Your task to perform on an android device: open app "Messenger Lite" (install if not already installed) Image 0: 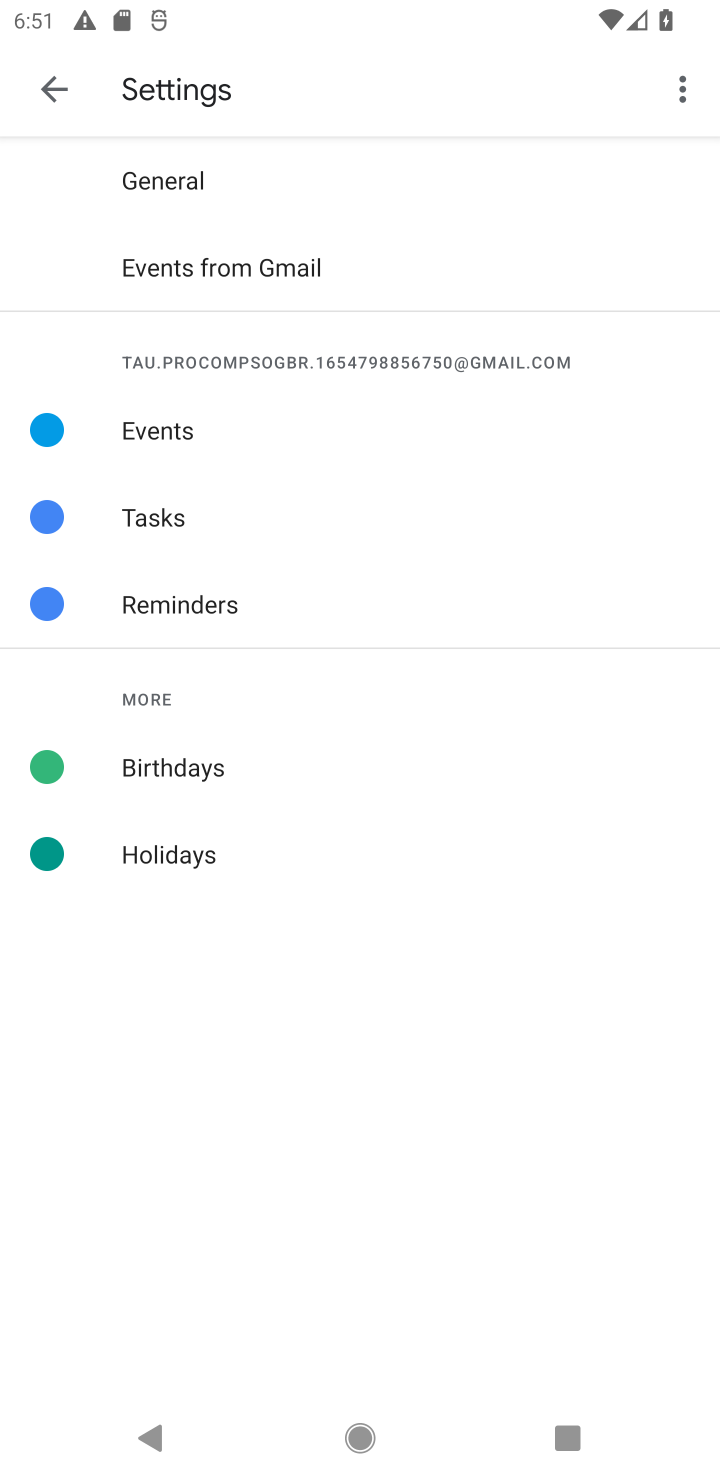
Step 0: press home button
Your task to perform on an android device: open app "Messenger Lite" (install if not already installed) Image 1: 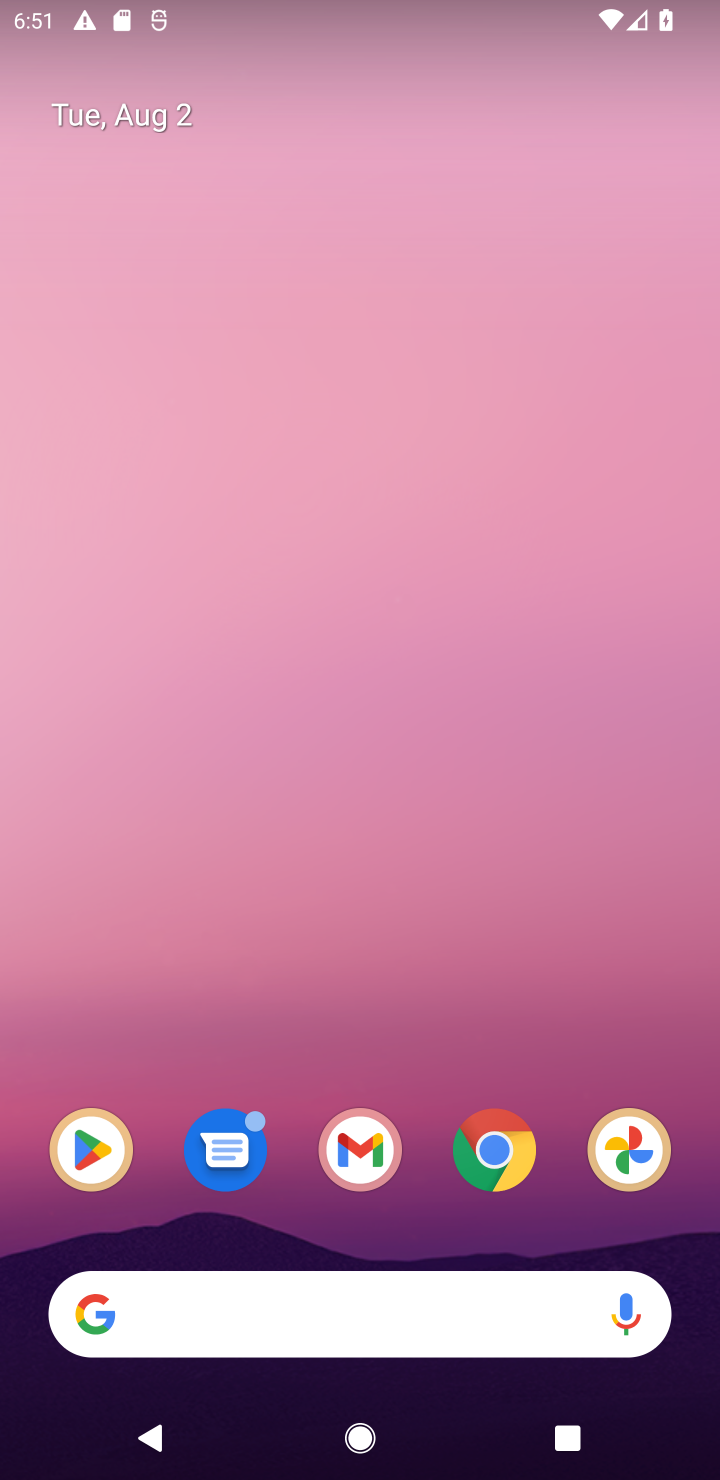
Step 1: drag from (312, 1224) to (716, 438)
Your task to perform on an android device: open app "Messenger Lite" (install if not already installed) Image 2: 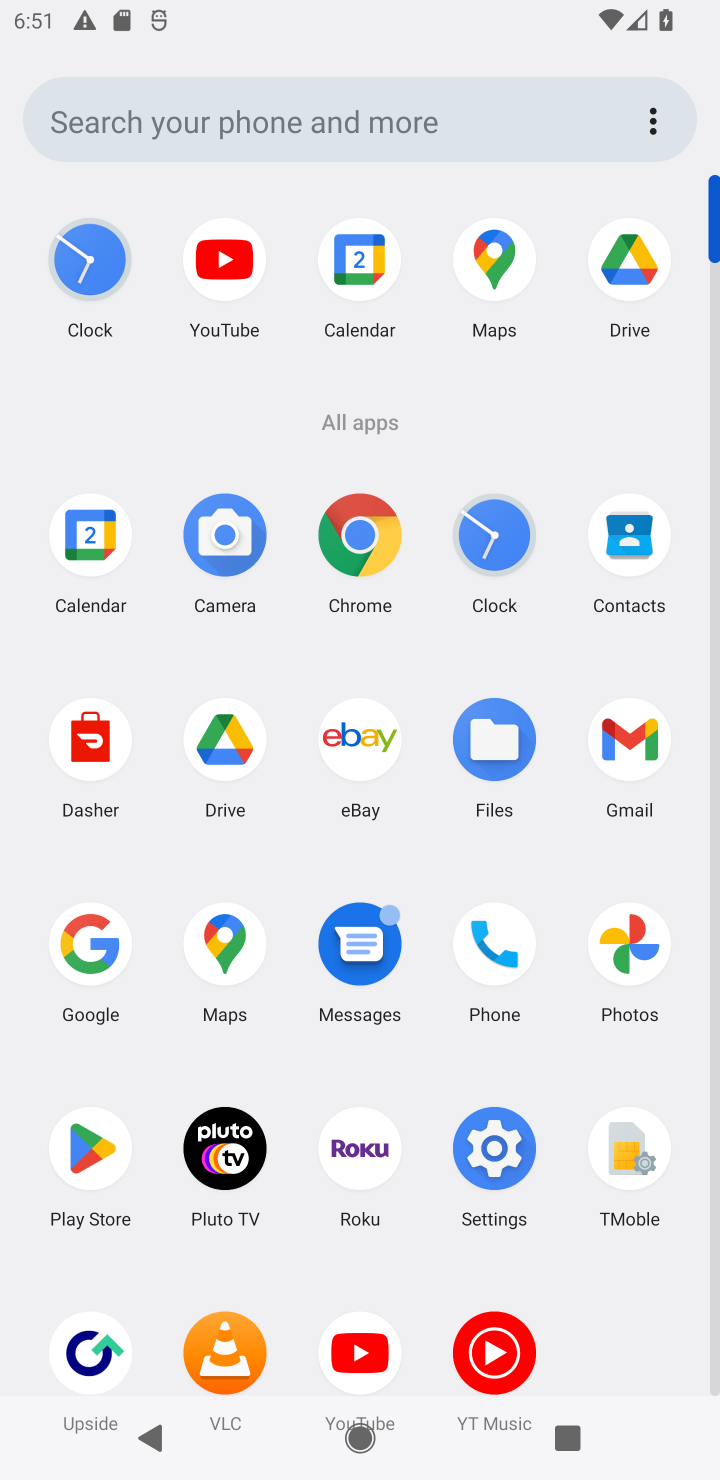
Step 2: click (112, 1119)
Your task to perform on an android device: open app "Messenger Lite" (install if not already installed) Image 3: 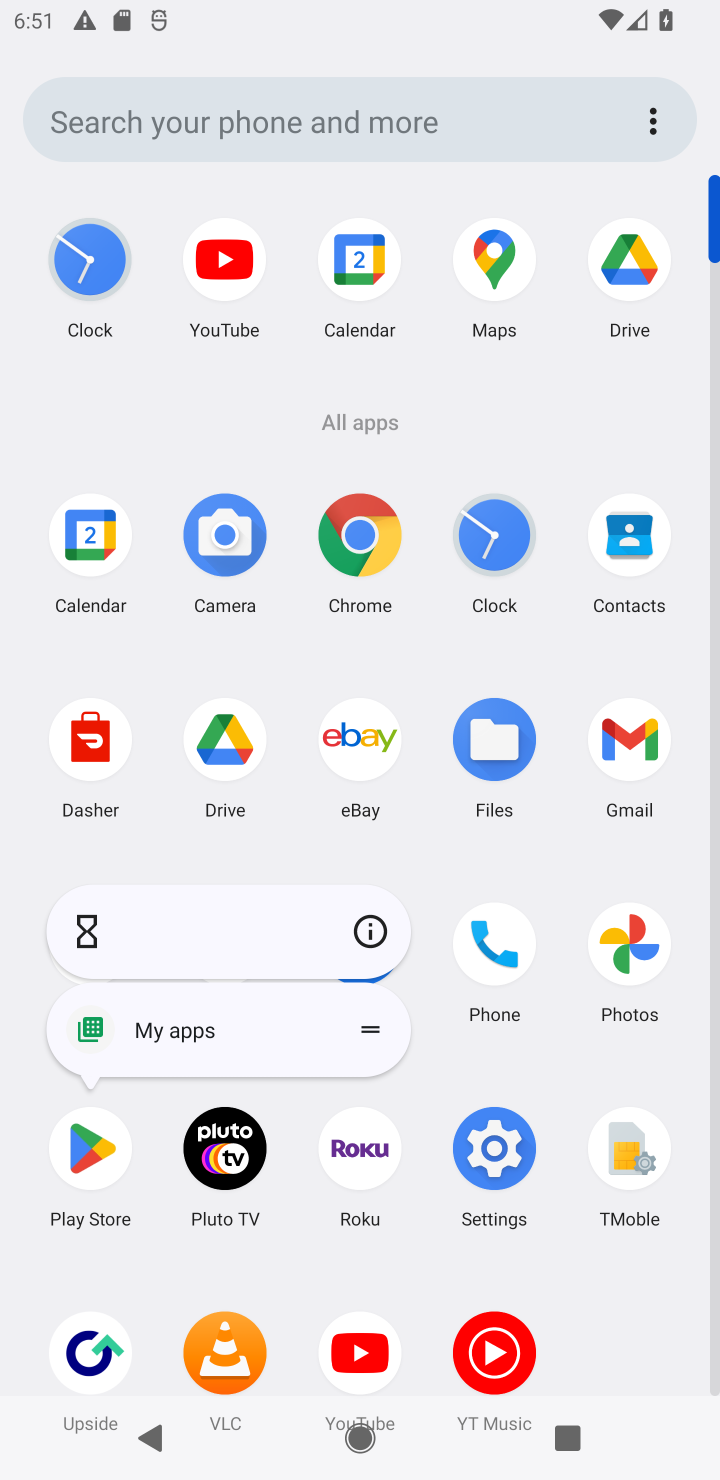
Step 3: click (83, 1153)
Your task to perform on an android device: open app "Messenger Lite" (install if not already installed) Image 4: 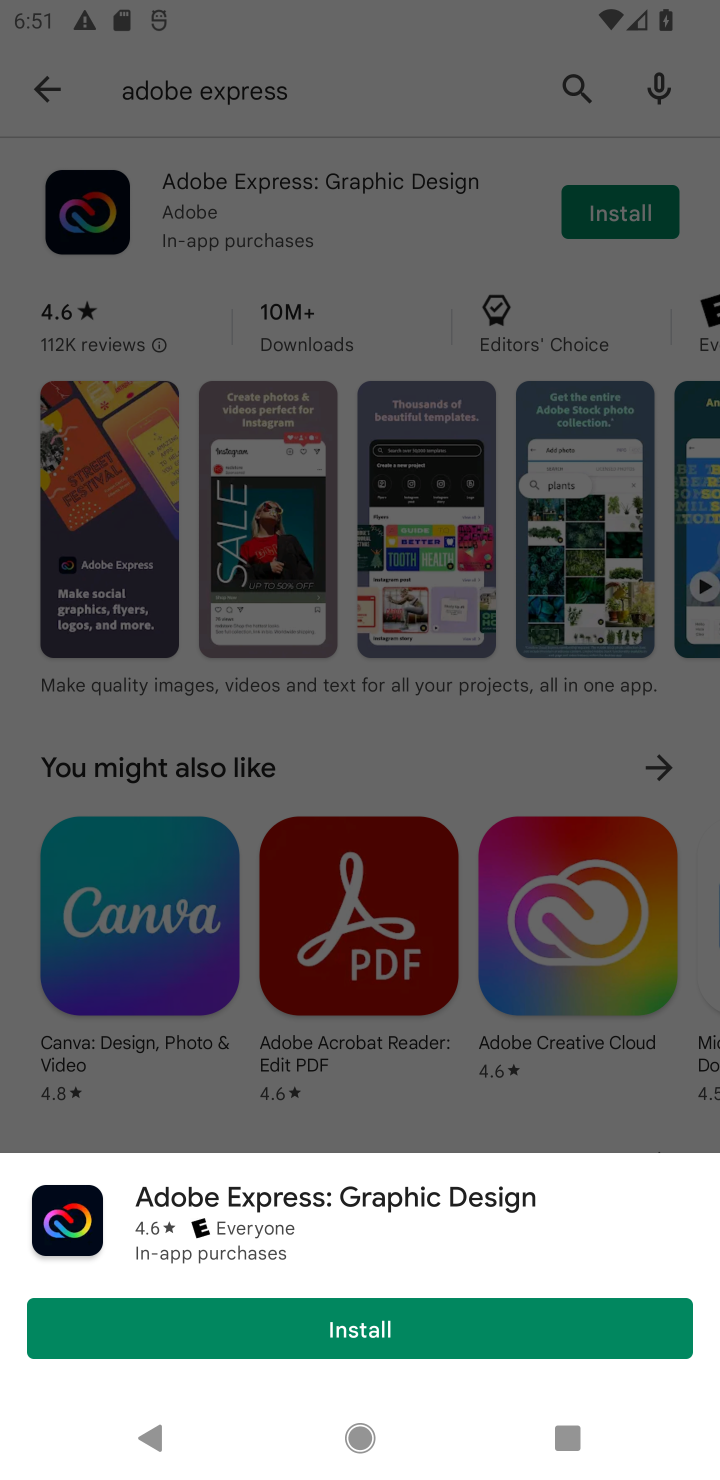
Step 4: click (170, 946)
Your task to perform on an android device: open app "Messenger Lite" (install if not already installed) Image 5: 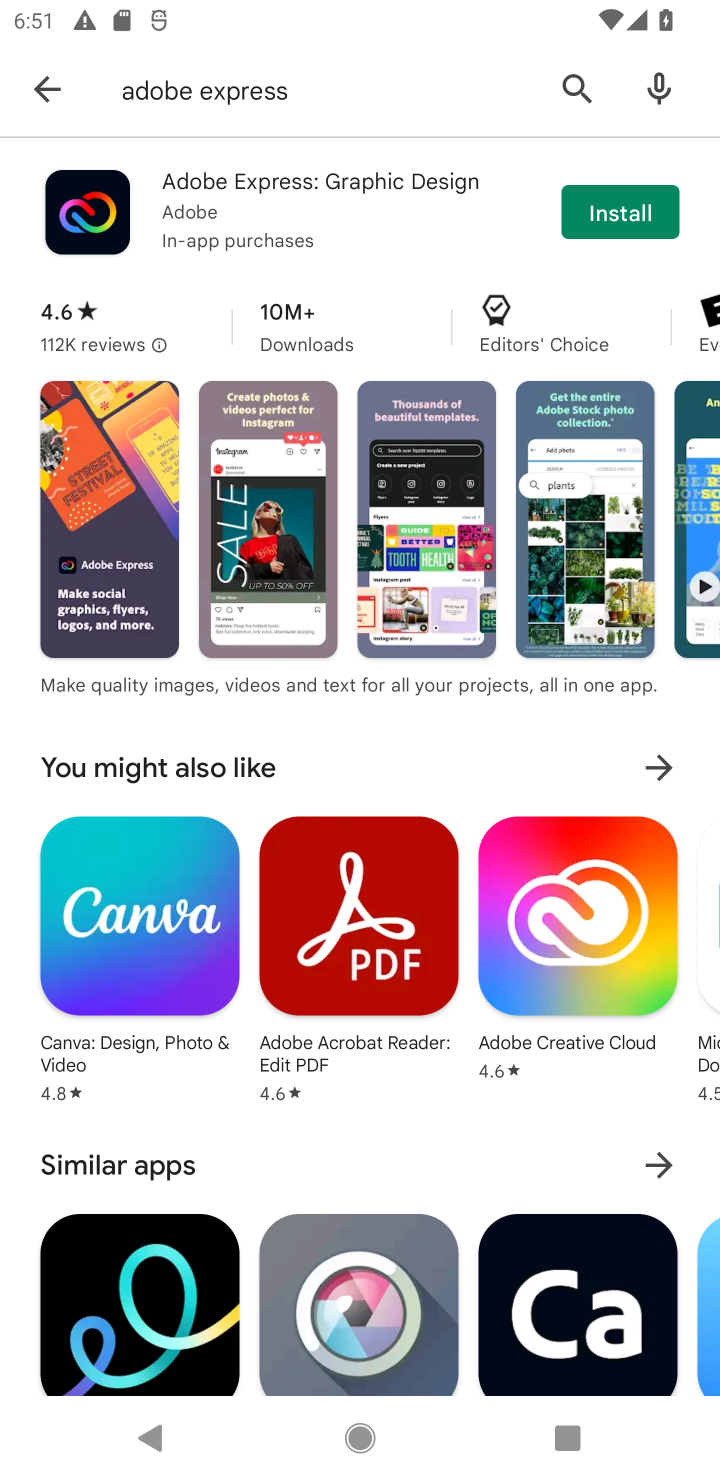
Step 5: click (54, 79)
Your task to perform on an android device: open app "Messenger Lite" (install if not already installed) Image 6: 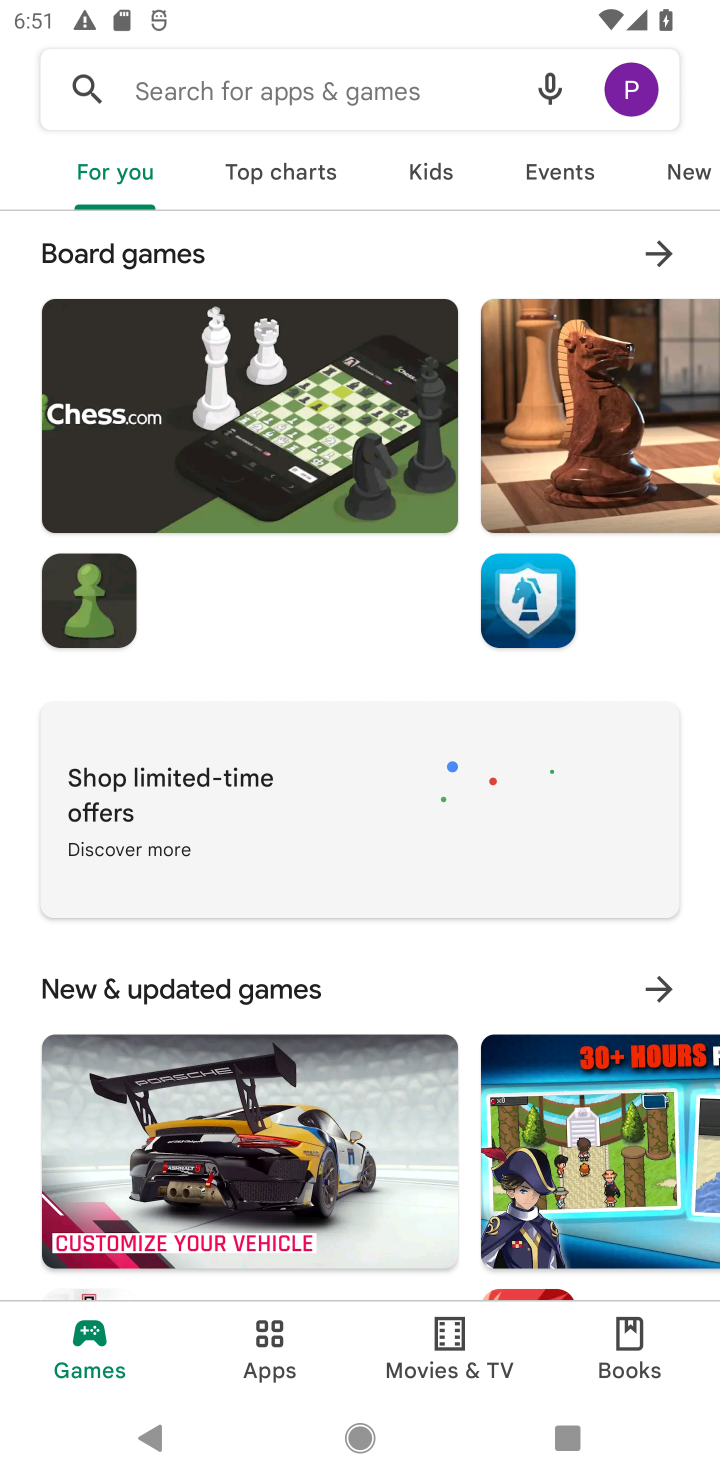
Step 6: click (194, 71)
Your task to perform on an android device: open app "Messenger Lite" (install if not already installed) Image 7: 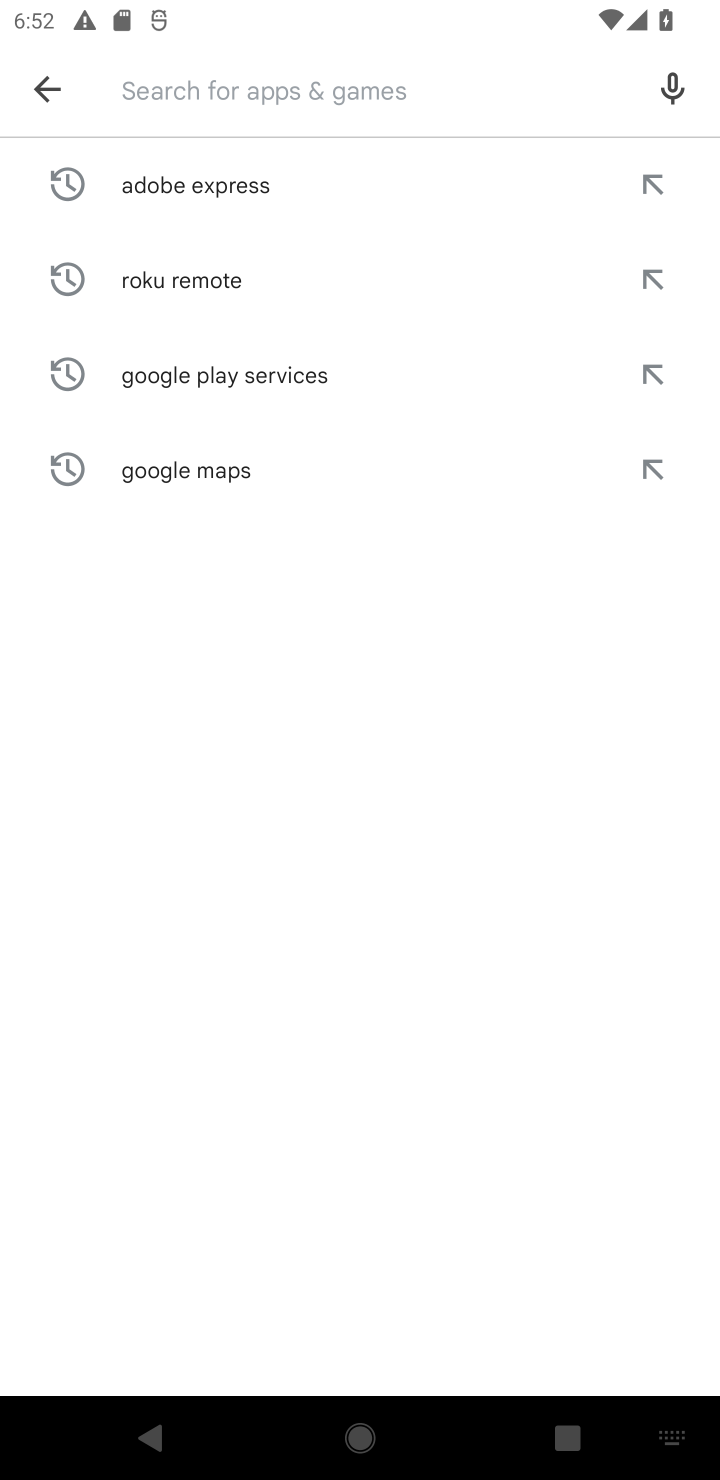
Step 7: type "Messenger Lite"
Your task to perform on an android device: open app "Messenger Lite" (install if not already installed) Image 8: 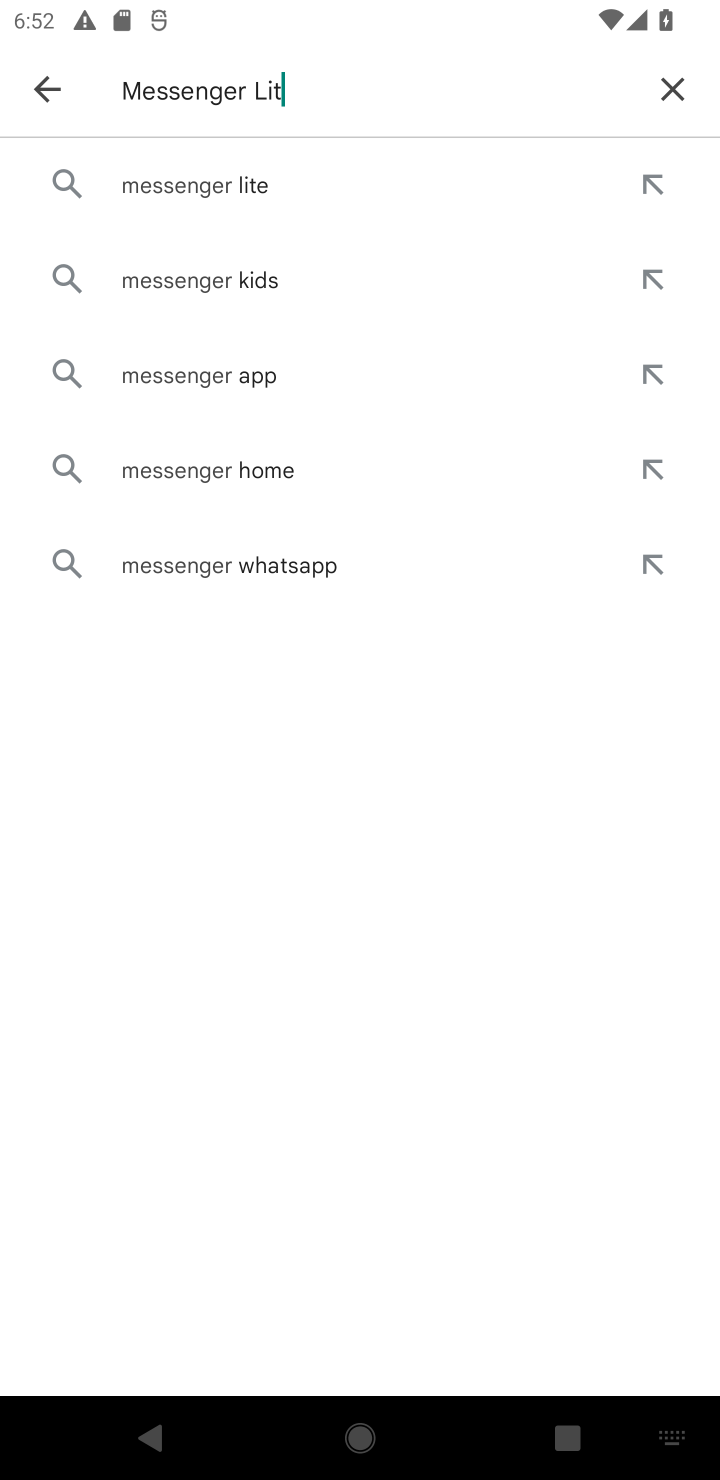
Step 8: type ""
Your task to perform on an android device: open app "Messenger Lite" (install if not already installed) Image 9: 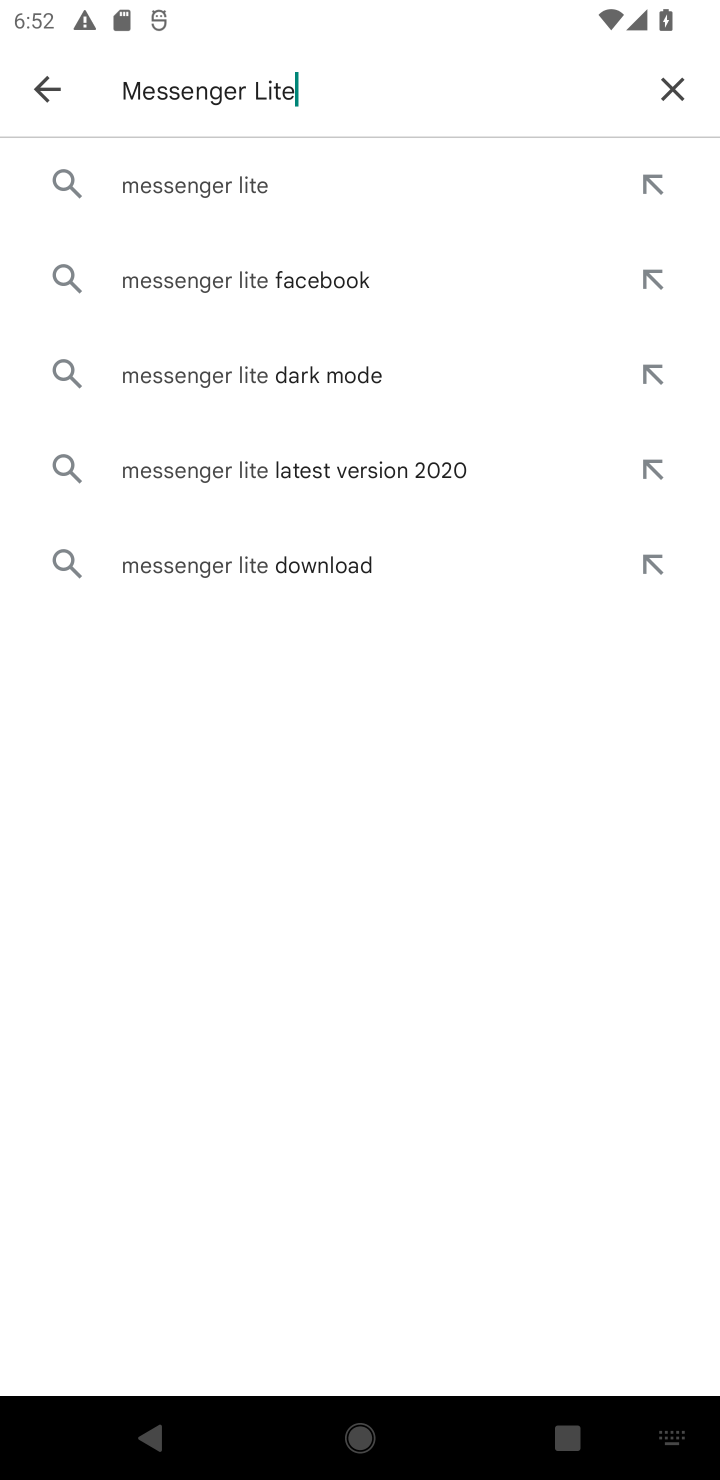
Step 9: click (227, 184)
Your task to perform on an android device: open app "Messenger Lite" (install if not already installed) Image 10: 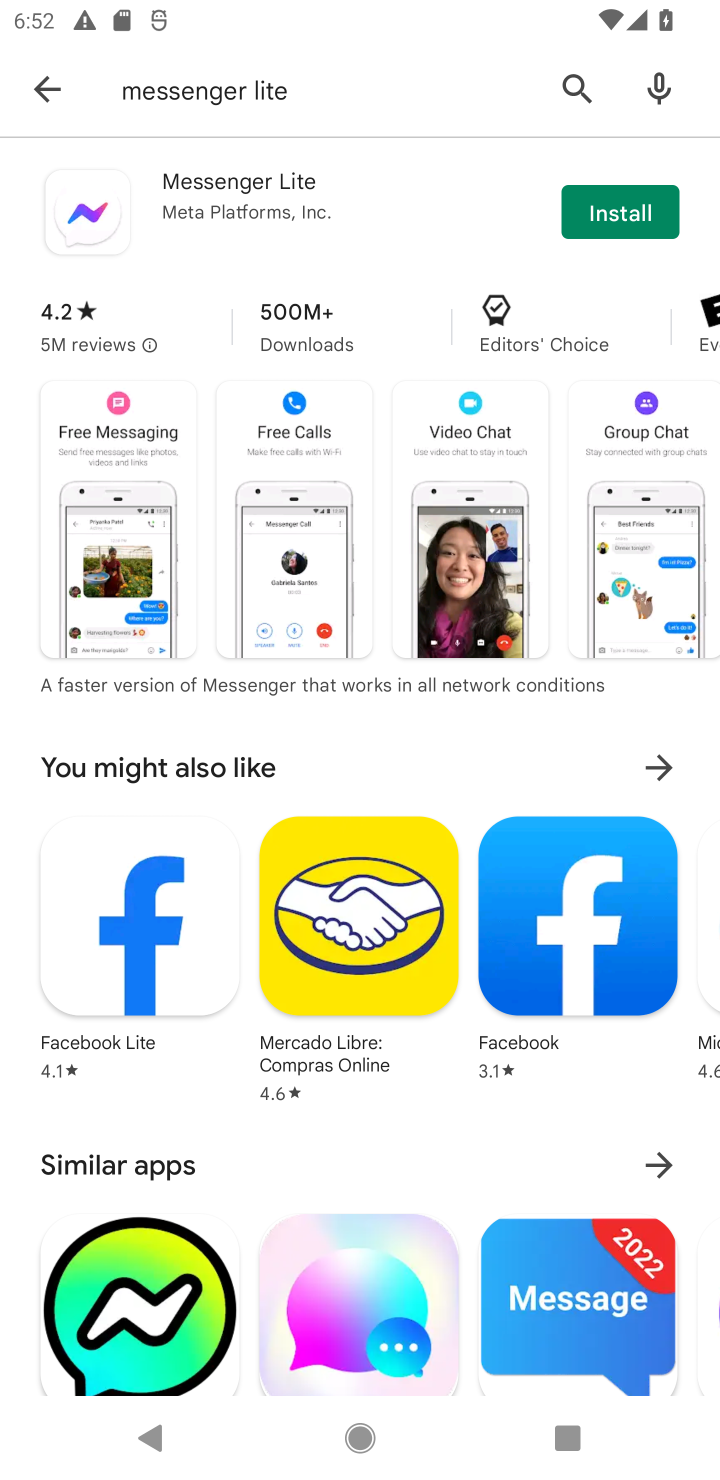
Step 10: click (584, 227)
Your task to perform on an android device: open app "Messenger Lite" (install if not already installed) Image 11: 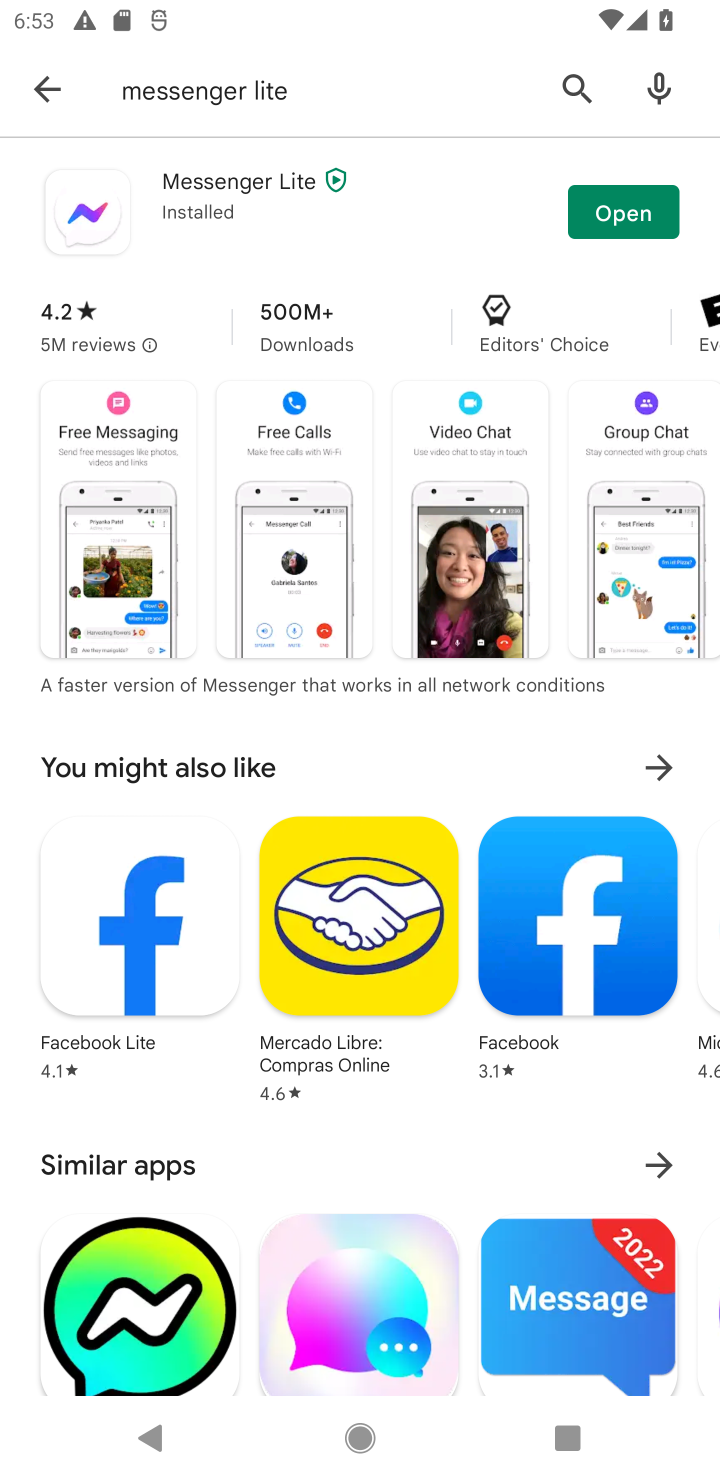
Step 11: click (639, 224)
Your task to perform on an android device: open app "Messenger Lite" (install if not already installed) Image 12: 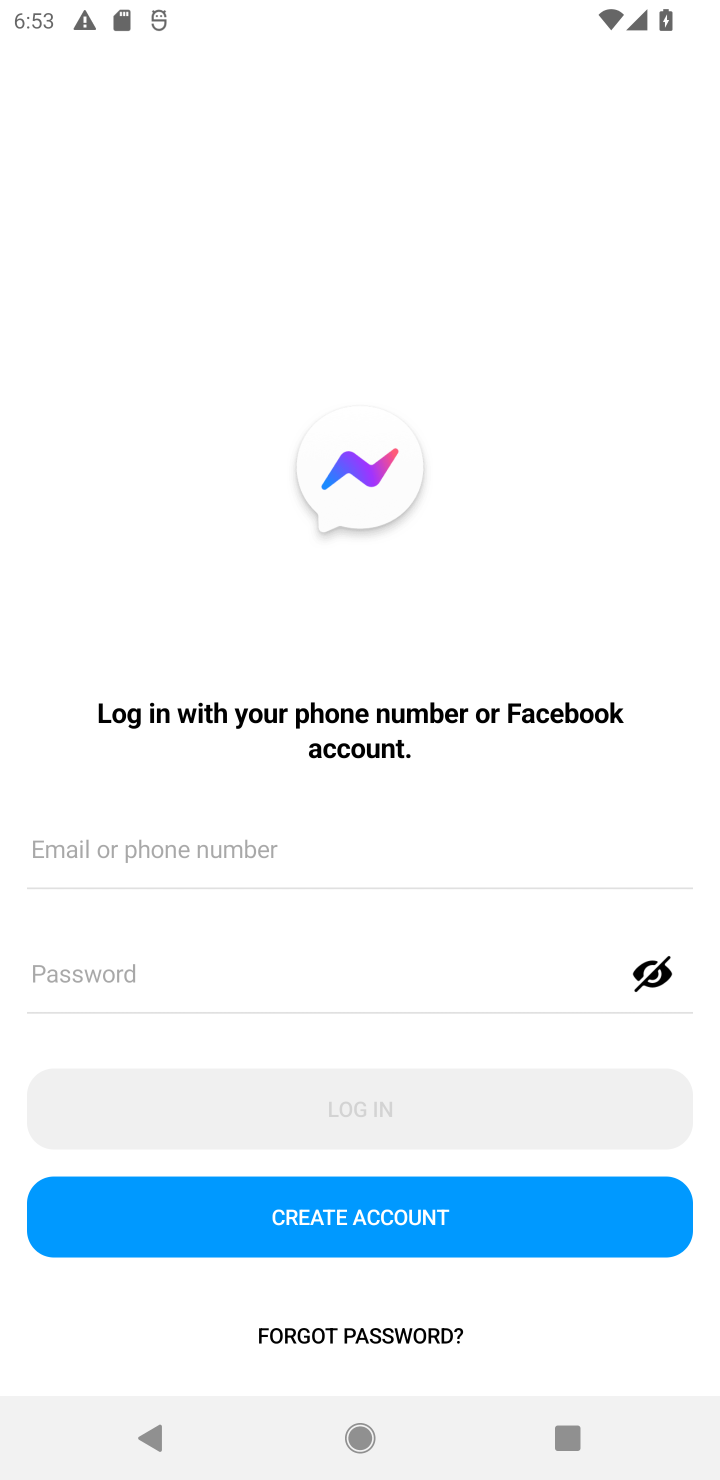
Step 12: task complete